Your task to perform on an android device: Search for sushi restaurants on Maps Image 0: 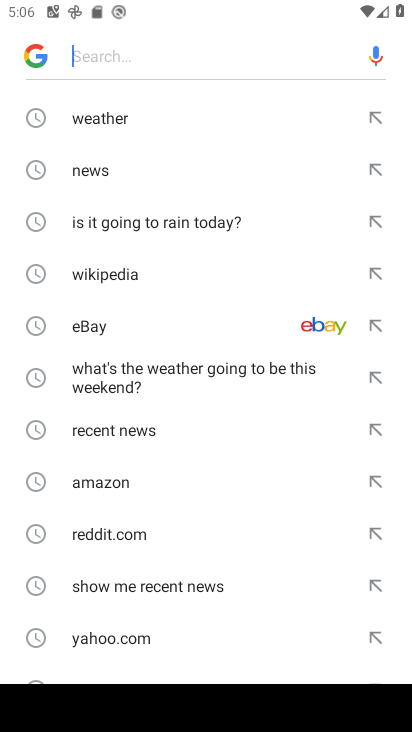
Step 0: press home button
Your task to perform on an android device: Search for sushi restaurants on Maps Image 1: 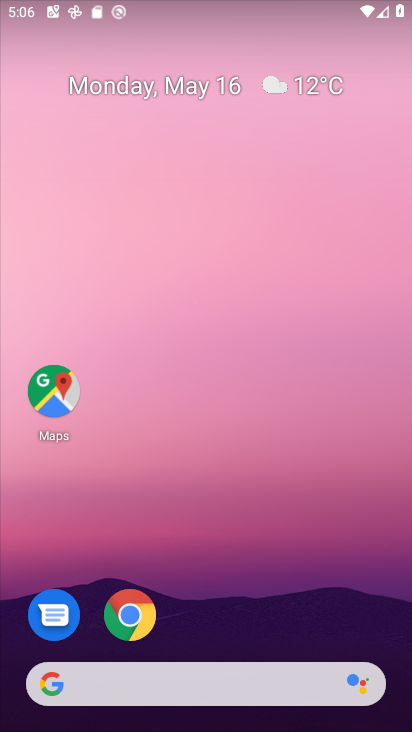
Step 1: drag from (244, 627) to (299, 185)
Your task to perform on an android device: Search for sushi restaurants on Maps Image 2: 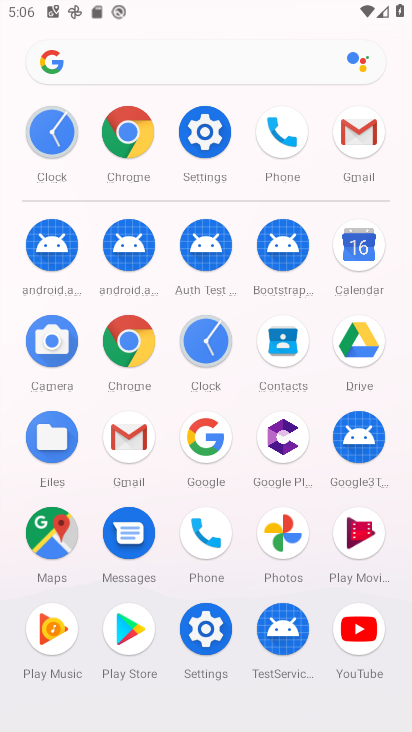
Step 2: click (55, 545)
Your task to perform on an android device: Search for sushi restaurants on Maps Image 3: 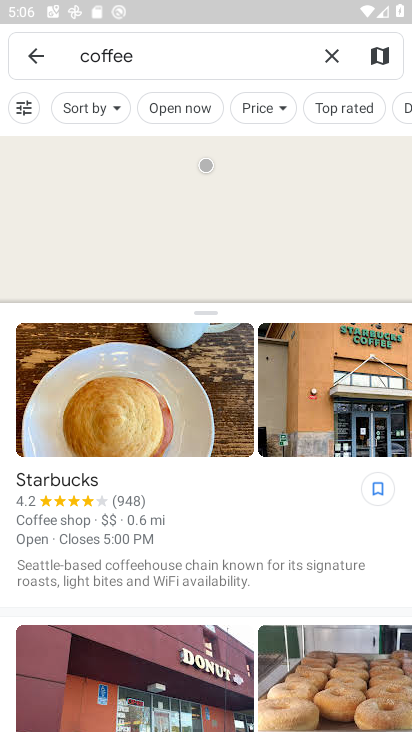
Step 3: click (335, 53)
Your task to perform on an android device: Search for sushi restaurants on Maps Image 4: 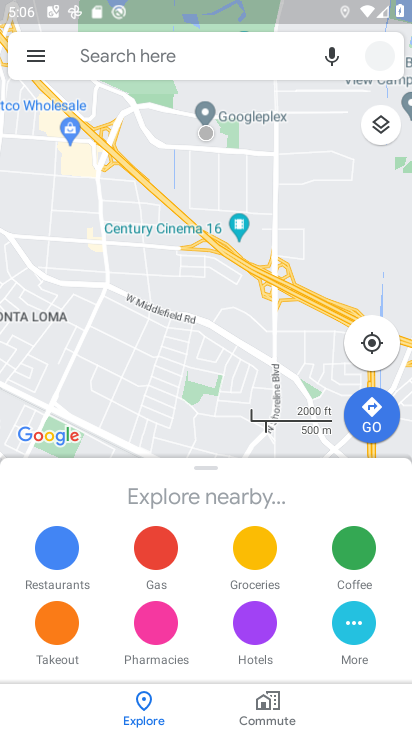
Step 4: click (175, 67)
Your task to perform on an android device: Search for sushi restaurants on Maps Image 5: 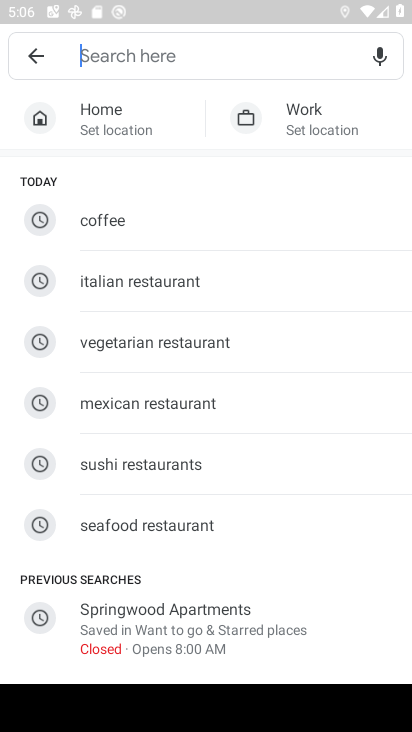
Step 5: click (151, 472)
Your task to perform on an android device: Search for sushi restaurants on Maps Image 6: 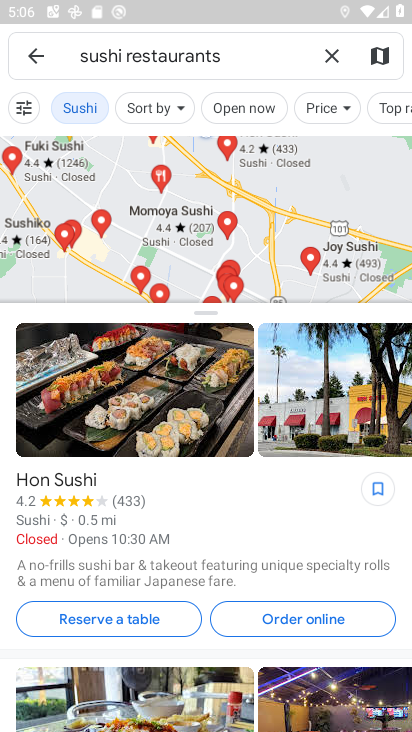
Step 6: task complete